Your task to perform on an android device: Open Wikipedia Image 0: 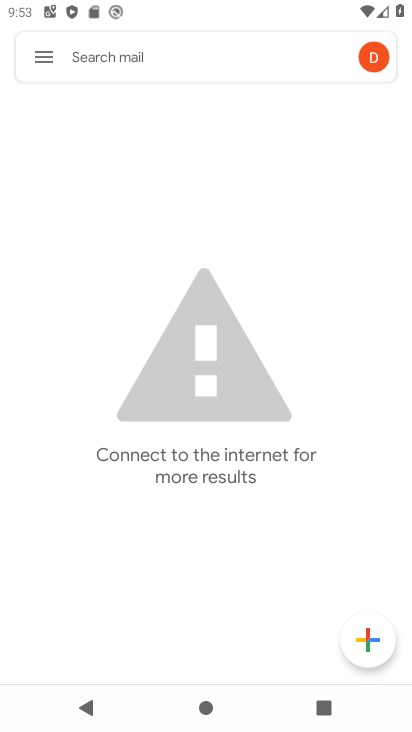
Step 0: press home button
Your task to perform on an android device: Open Wikipedia Image 1: 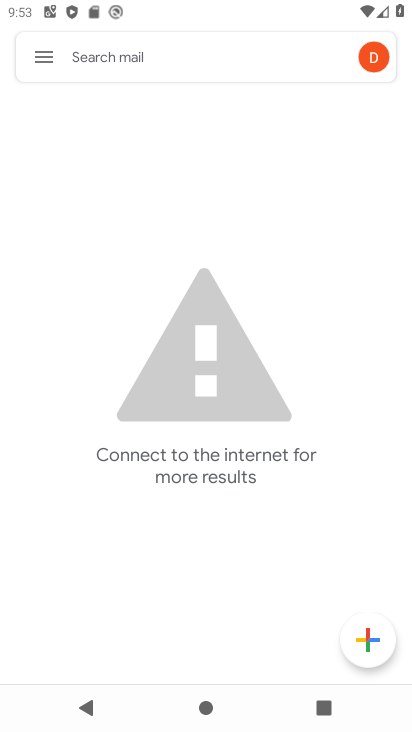
Step 1: press home button
Your task to perform on an android device: Open Wikipedia Image 2: 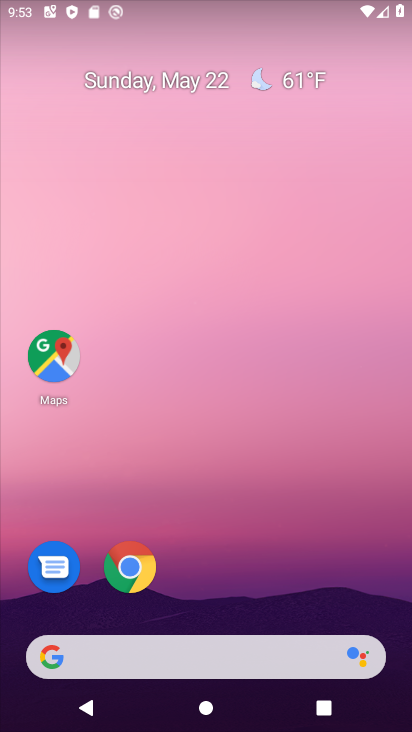
Step 2: click (139, 577)
Your task to perform on an android device: Open Wikipedia Image 3: 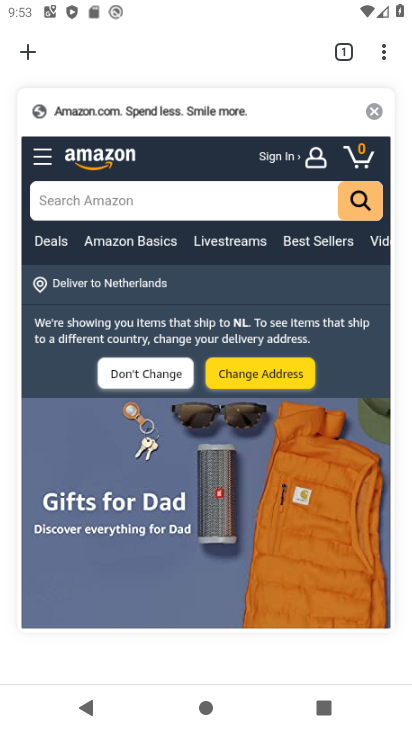
Step 3: click (27, 52)
Your task to perform on an android device: Open Wikipedia Image 4: 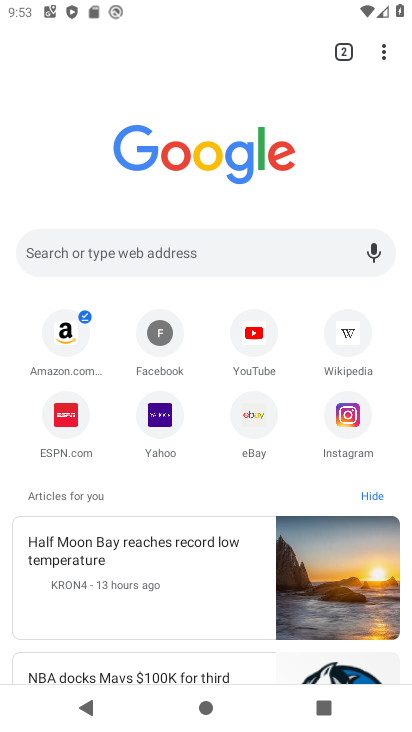
Step 4: click (345, 343)
Your task to perform on an android device: Open Wikipedia Image 5: 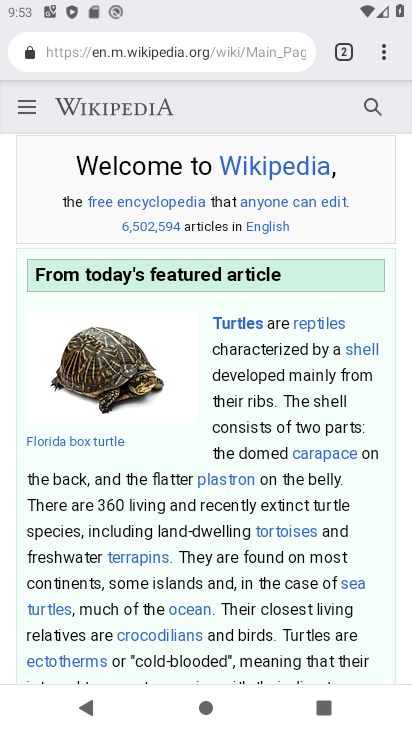
Step 5: task complete